Your task to perform on an android device: check google app version Image 0: 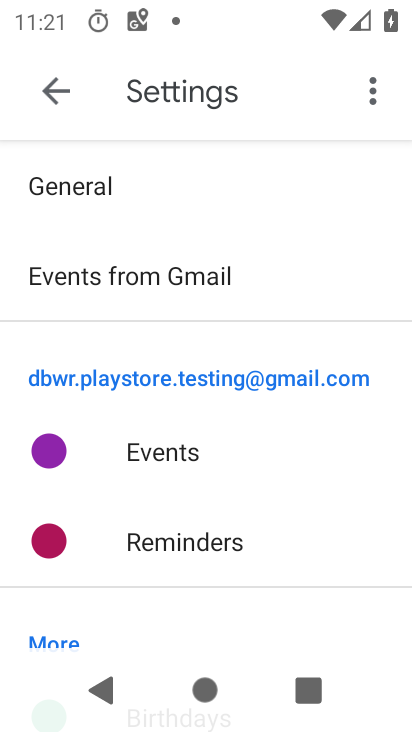
Step 0: press home button
Your task to perform on an android device: check google app version Image 1: 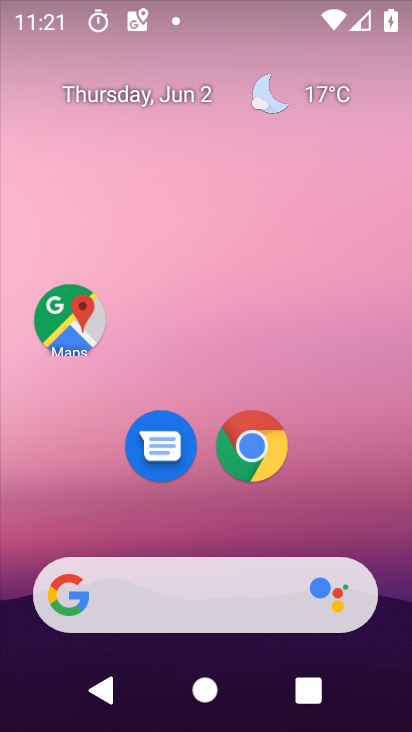
Step 1: drag from (383, 542) to (362, 176)
Your task to perform on an android device: check google app version Image 2: 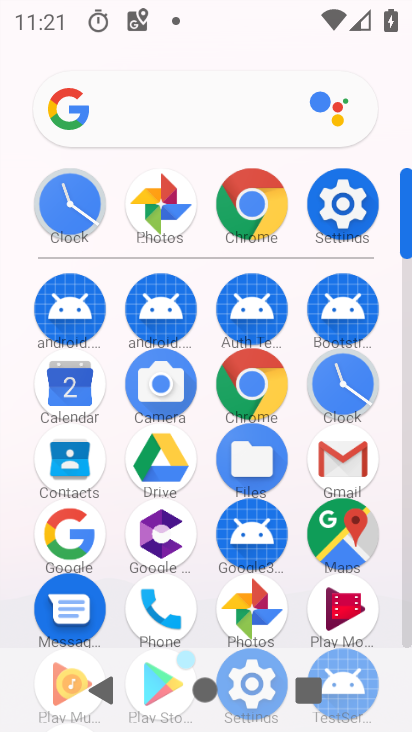
Step 2: click (81, 535)
Your task to perform on an android device: check google app version Image 3: 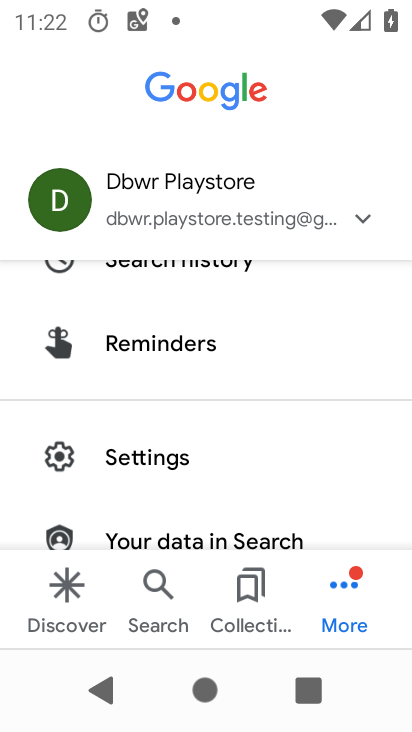
Step 3: click (184, 466)
Your task to perform on an android device: check google app version Image 4: 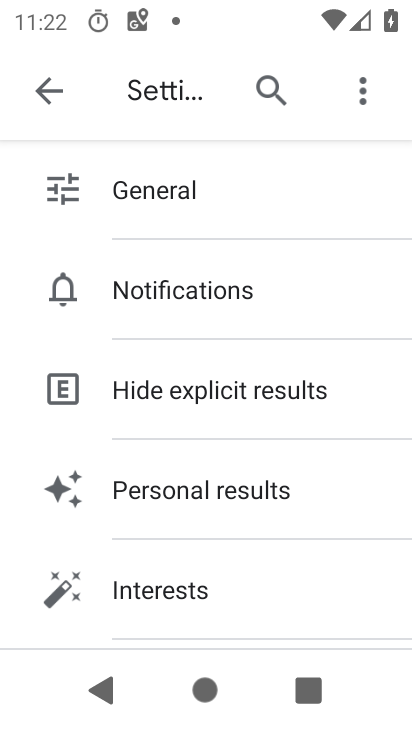
Step 4: drag from (380, 445) to (388, 367)
Your task to perform on an android device: check google app version Image 5: 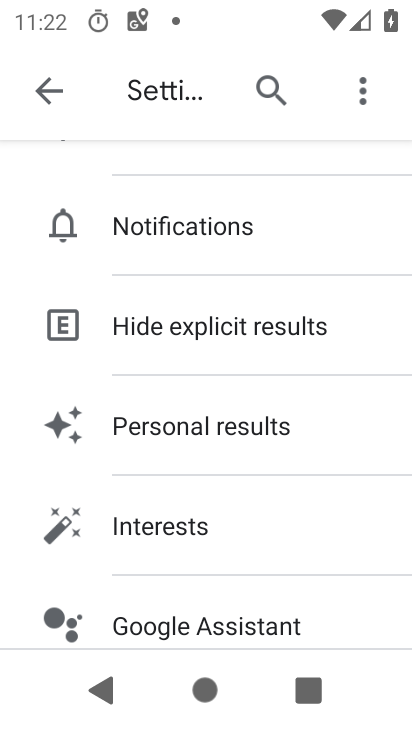
Step 5: drag from (371, 478) to (367, 371)
Your task to perform on an android device: check google app version Image 6: 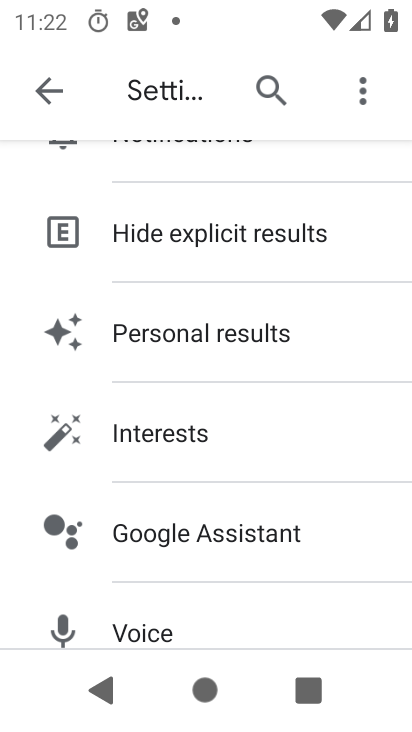
Step 6: drag from (354, 534) to (352, 387)
Your task to perform on an android device: check google app version Image 7: 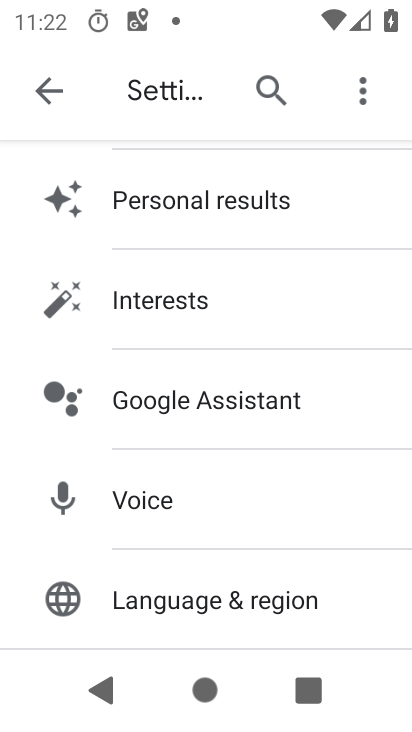
Step 7: drag from (362, 524) to (358, 354)
Your task to perform on an android device: check google app version Image 8: 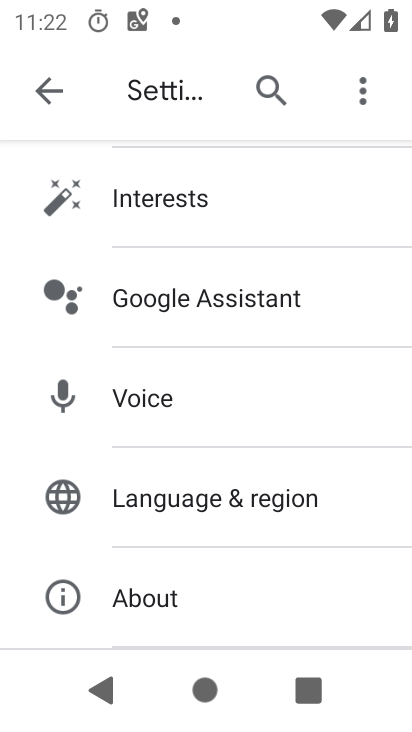
Step 8: click (324, 600)
Your task to perform on an android device: check google app version Image 9: 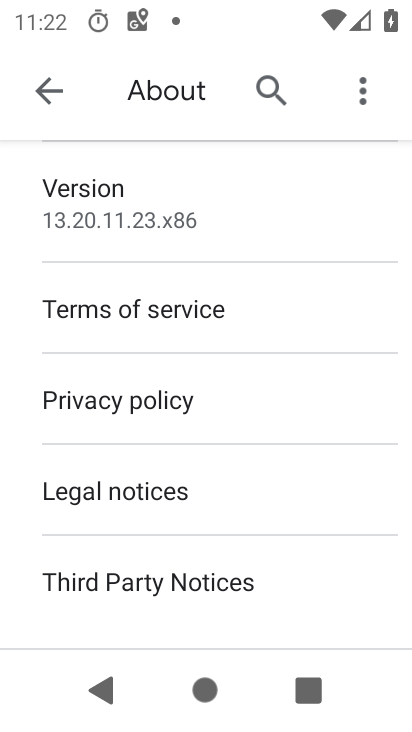
Step 9: task complete